Your task to perform on an android device: turn off wifi Image 0: 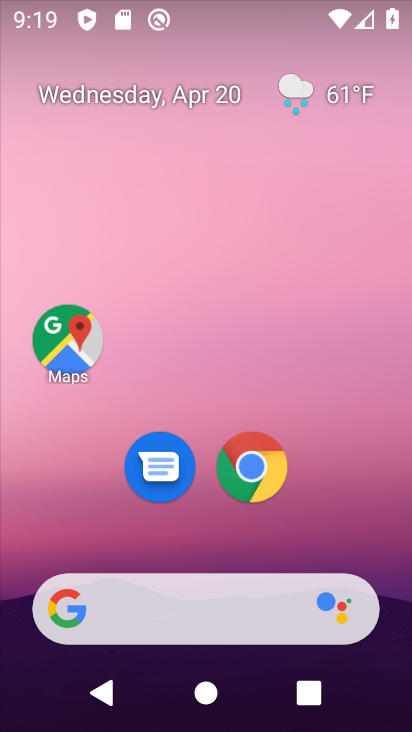
Step 0: drag from (321, 504) to (332, 136)
Your task to perform on an android device: turn off wifi Image 1: 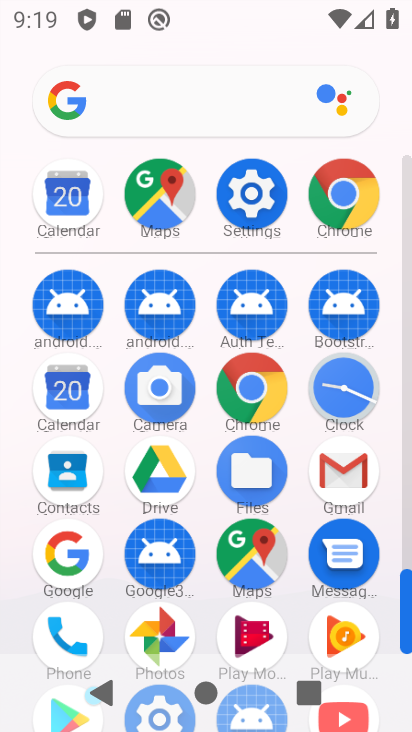
Step 1: click (263, 191)
Your task to perform on an android device: turn off wifi Image 2: 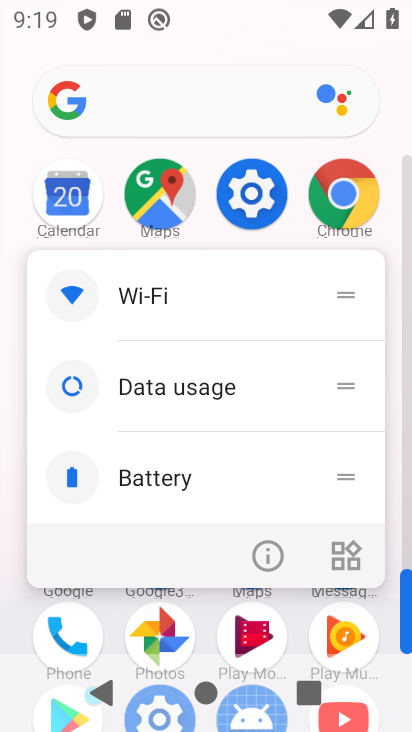
Step 2: click (262, 190)
Your task to perform on an android device: turn off wifi Image 3: 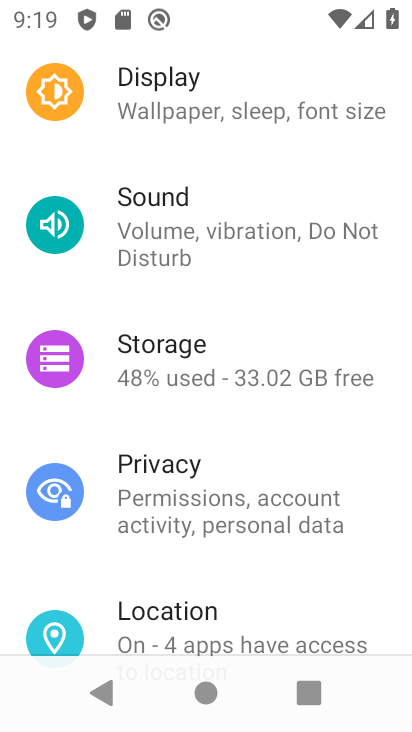
Step 3: drag from (264, 167) to (296, 547)
Your task to perform on an android device: turn off wifi Image 4: 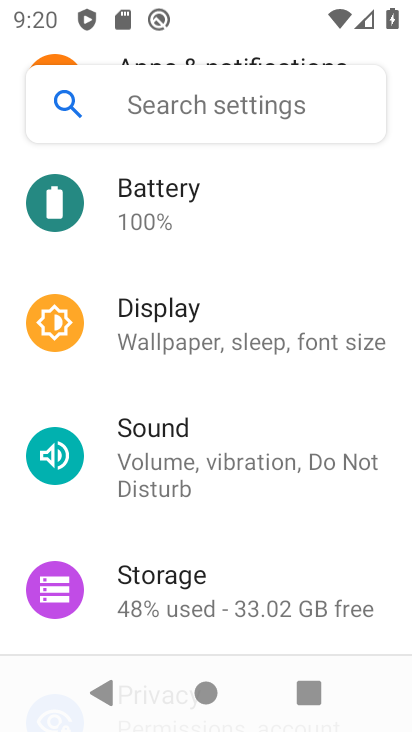
Step 4: drag from (251, 157) to (210, 541)
Your task to perform on an android device: turn off wifi Image 5: 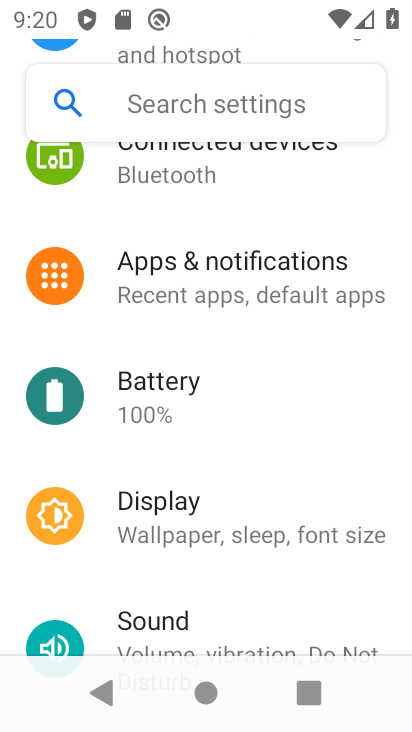
Step 5: drag from (225, 294) to (202, 682)
Your task to perform on an android device: turn off wifi Image 6: 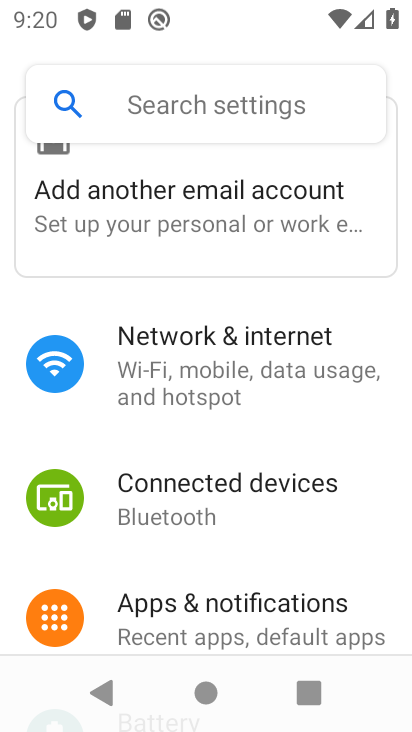
Step 6: click (241, 348)
Your task to perform on an android device: turn off wifi Image 7: 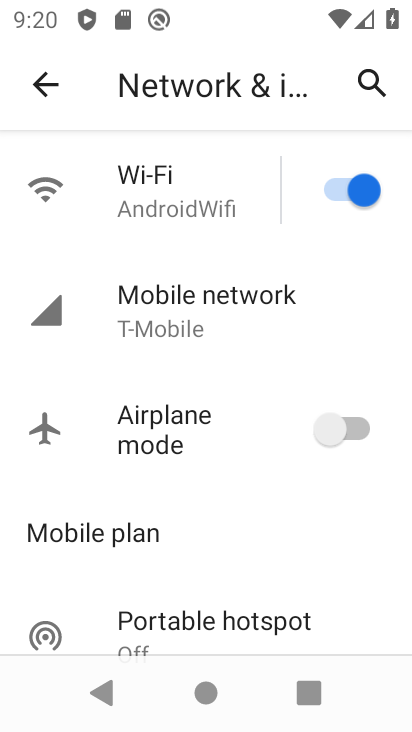
Step 7: click (350, 189)
Your task to perform on an android device: turn off wifi Image 8: 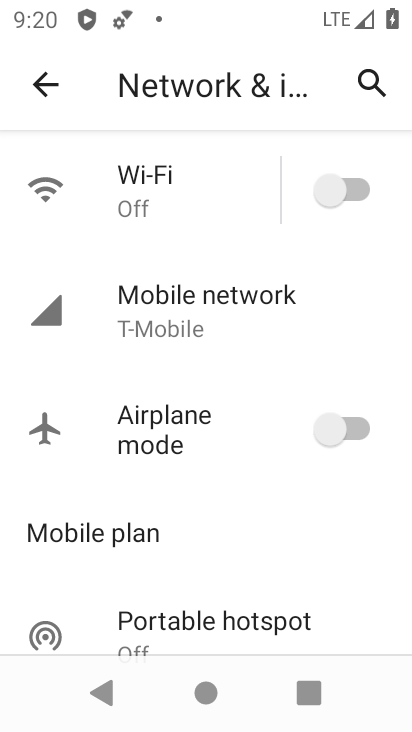
Step 8: task complete